Your task to perform on an android device: Open accessibility settings Image 0: 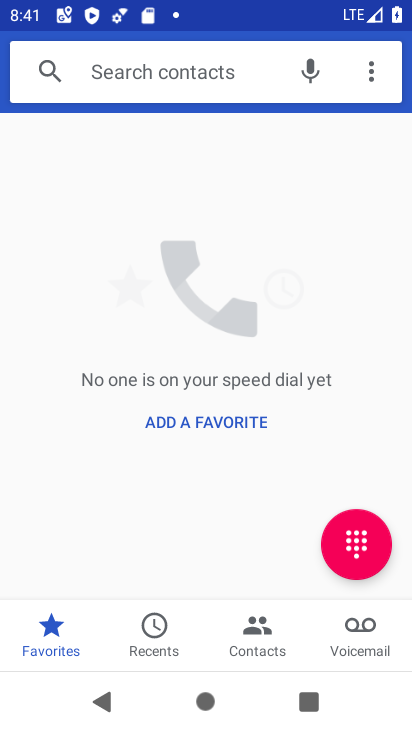
Step 0: press home button
Your task to perform on an android device: Open accessibility settings Image 1: 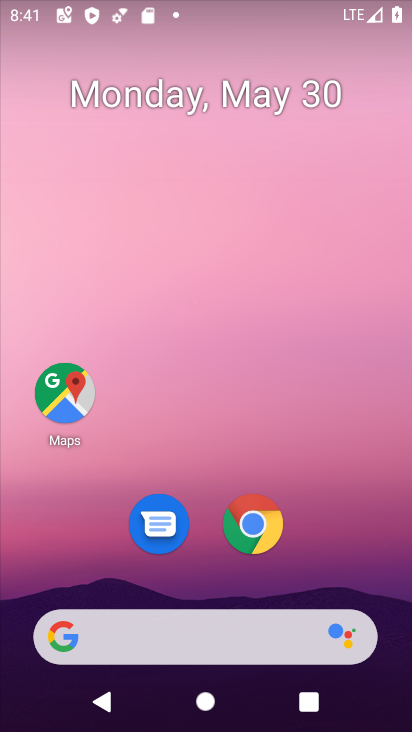
Step 1: drag from (308, 553) to (378, 24)
Your task to perform on an android device: Open accessibility settings Image 2: 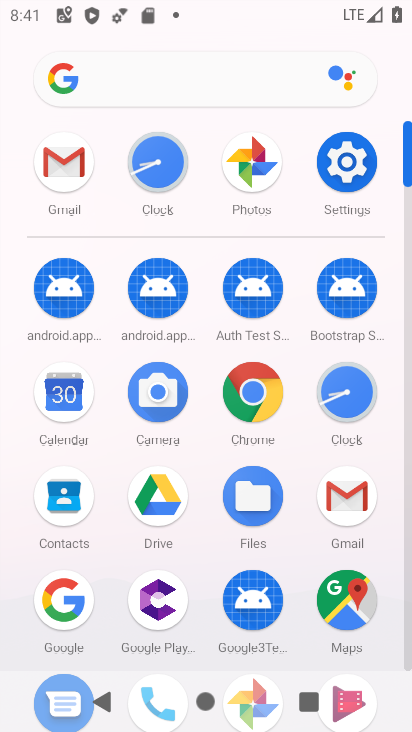
Step 2: click (354, 167)
Your task to perform on an android device: Open accessibility settings Image 3: 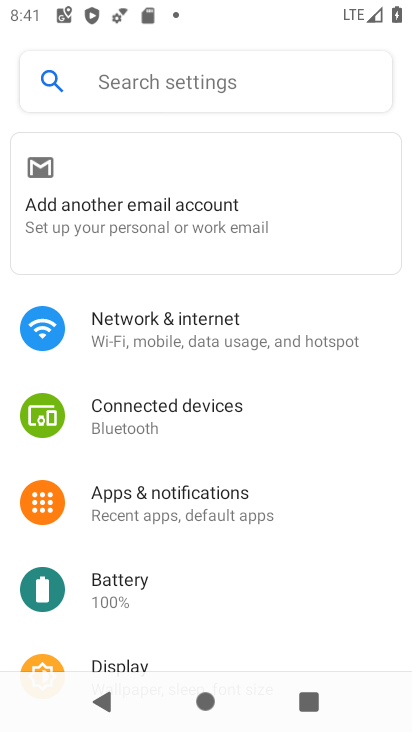
Step 3: drag from (207, 608) to (291, 7)
Your task to perform on an android device: Open accessibility settings Image 4: 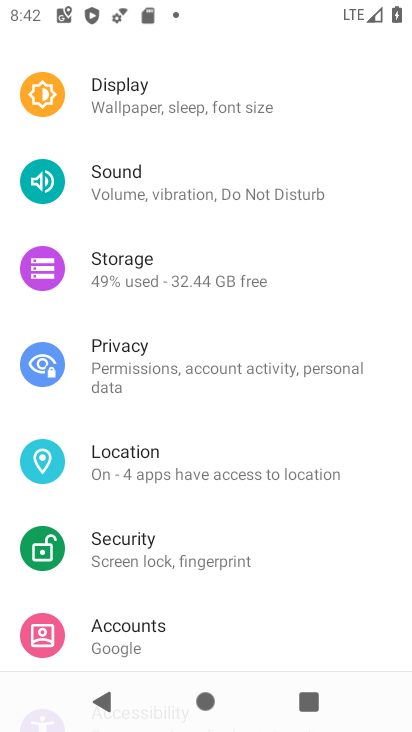
Step 4: drag from (245, 592) to (297, 73)
Your task to perform on an android device: Open accessibility settings Image 5: 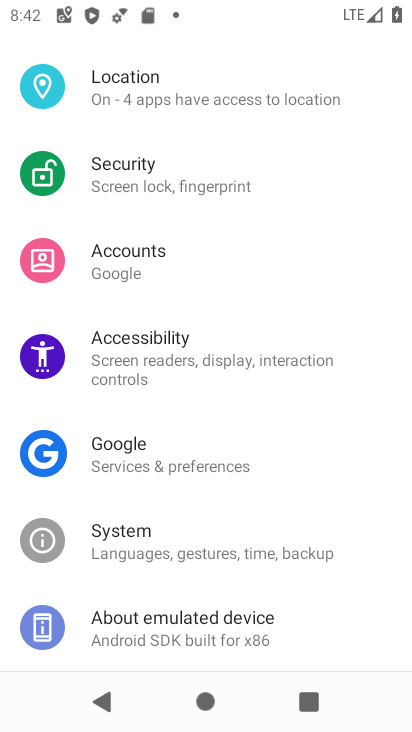
Step 5: click (205, 334)
Your task to perform on an android device: Open accessibility settings Image 6: 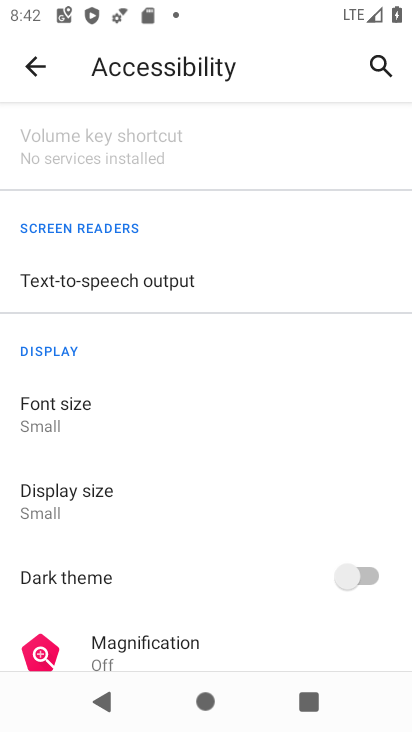
Step 6: task complete